Your task to perform on an android device: change notifications settings Image 0: 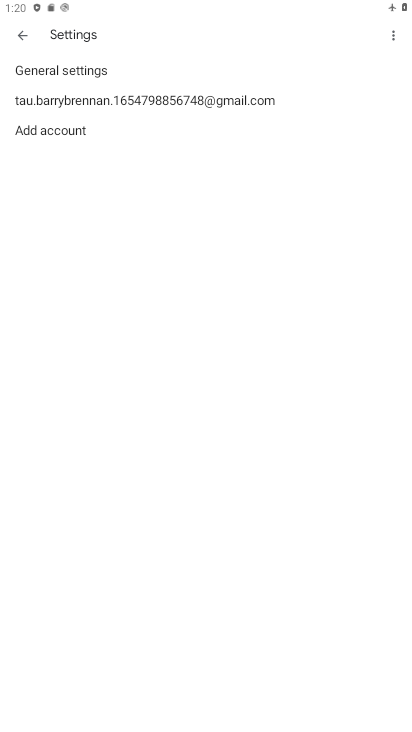
Step 0: press home button
Your task to perform on an android device: change notifications settings Image 1: 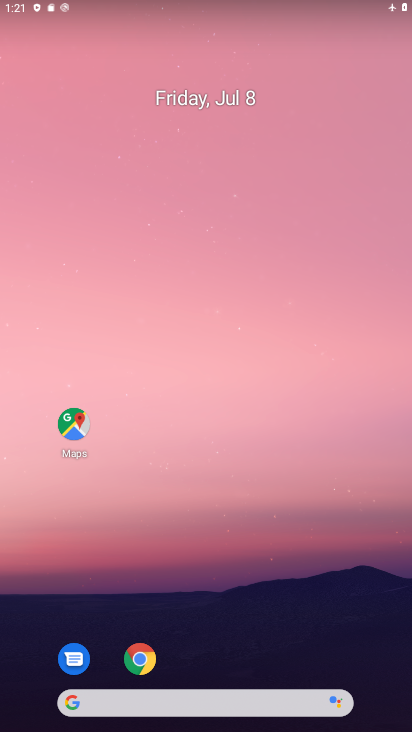
Step 1: drag from (244, 616) to (247, 93)
Your task to perform on an android device: change notifications settings Image 2: 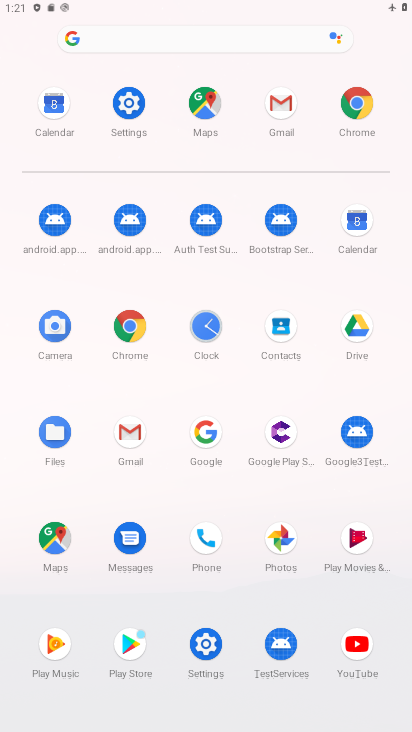
Step 2: click (211, 652)
Your task to perform on an android device: change notifications settings Image 3: 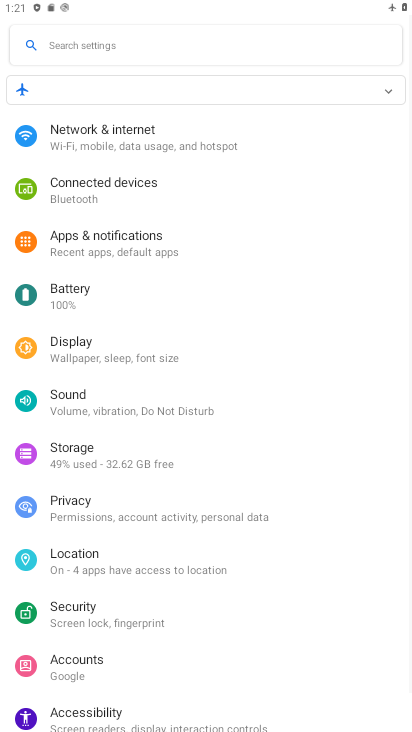
Step 3: click (193, 247)
Your task to perform on an android device: change notifications settings Image 4: 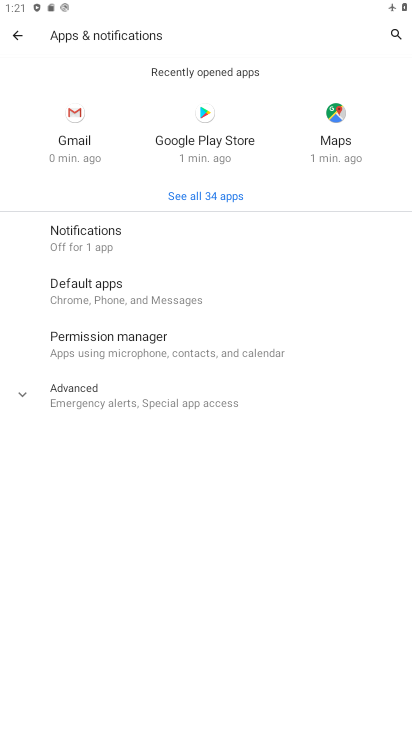
Step 4: click (201, 242)
Your task to perform on an android device: change notifications settings Image 5: 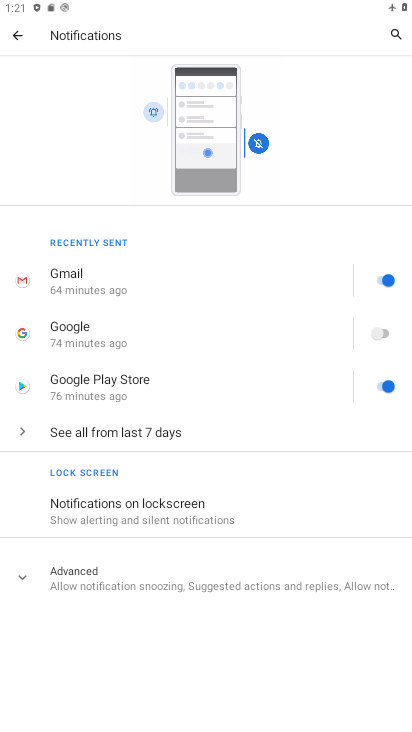
Step 5: click (388, 283)
Your task to perform on an android device: change notifications settings Image 6: 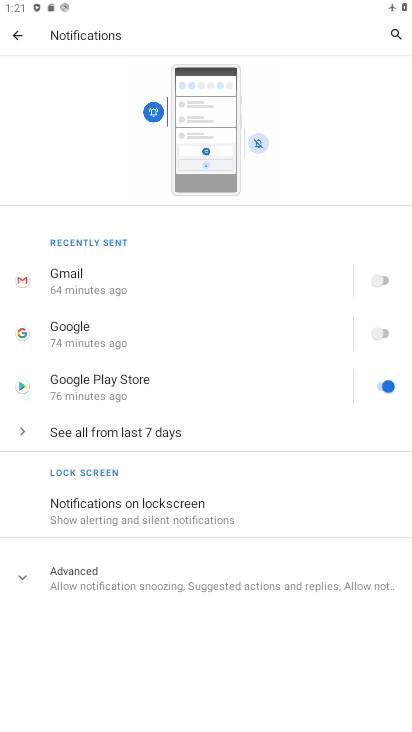
Step 6: task complete